Your task to perform on an android device: What's the weather going to be tomorrow? Image 0: 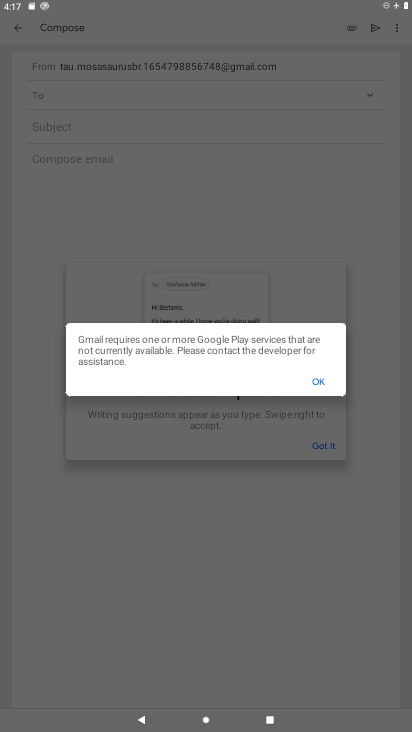
Step 0: press home button
Your task to perform on an android device: What's the weather going to be tomorrow? Image 1: 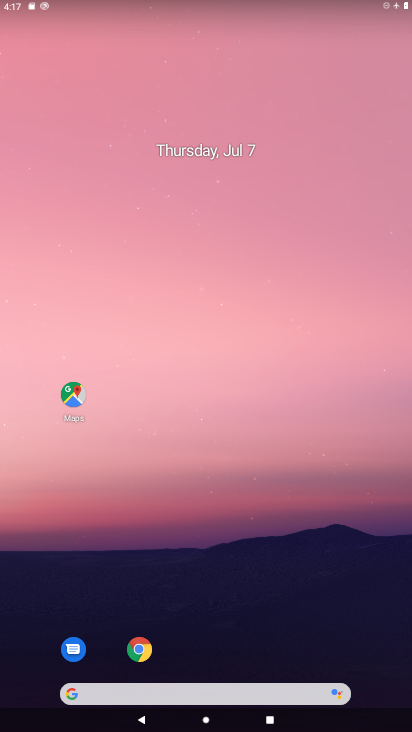
Step 1: click (135, 693)
Your task to perform on an android device: What's the weather going to be tomorrow? Image 2: 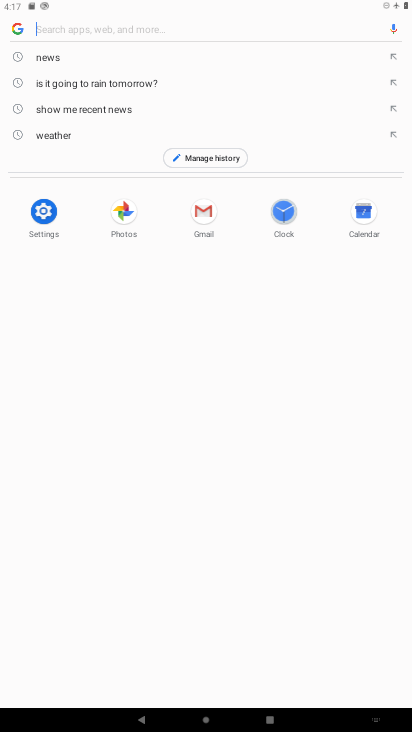
Step 2: click (60, 134)
Your task to perform on an android device: What's the weather going to be tomorrow? Image 3: 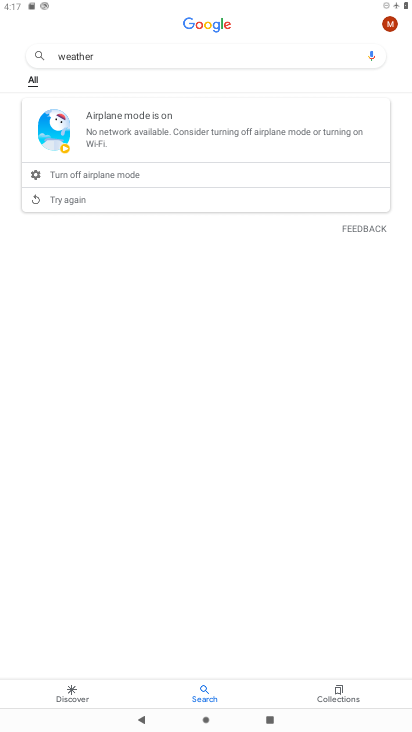
Step 3: click (55, 199)
Your task to perform on an android device: What's the weather going to be tomorrow? Image 4: 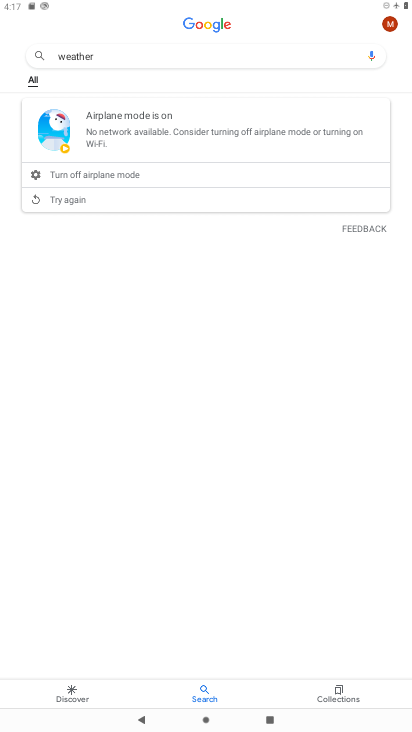
Step 4: task complete